Your task to perform on an android device: What is the recent news? Image 0: 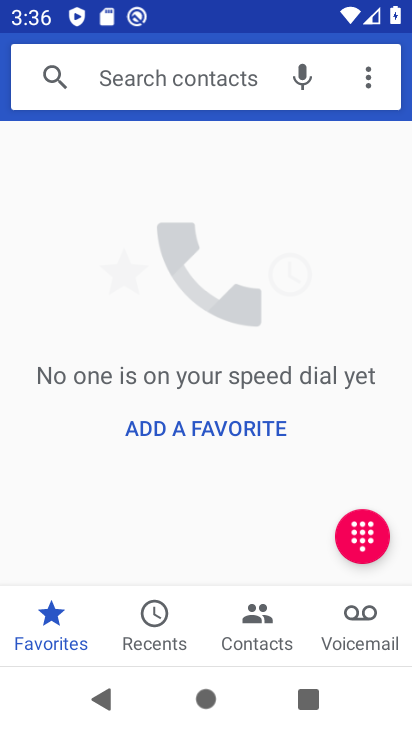
Step 0: press home button
Your task to perform on an android device: What is the recent news? Image 1: 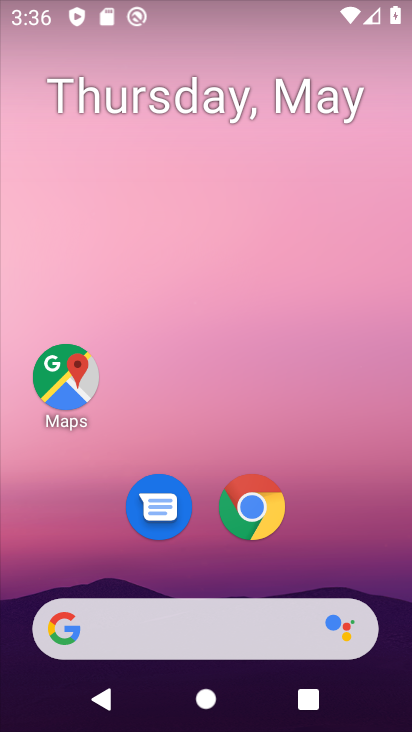
Step 1: click (176, 626)
Your task to perform on an android device: What is the recent news? Image 2: 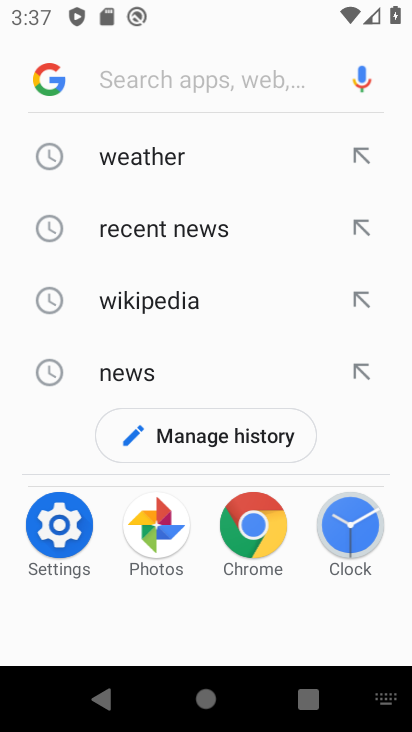
Step 2: type "recent news"
Your task to perform on an android device: What is the recent news? Image 3: 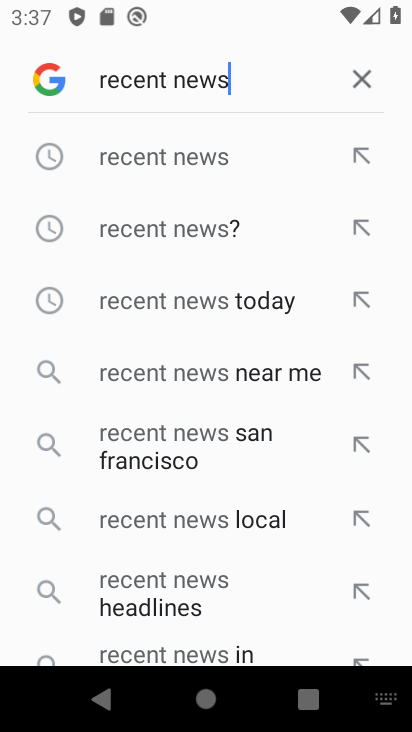
Step 3: click (189, 163)
Your task to perform on an android device: What is the recent news? Image 4: 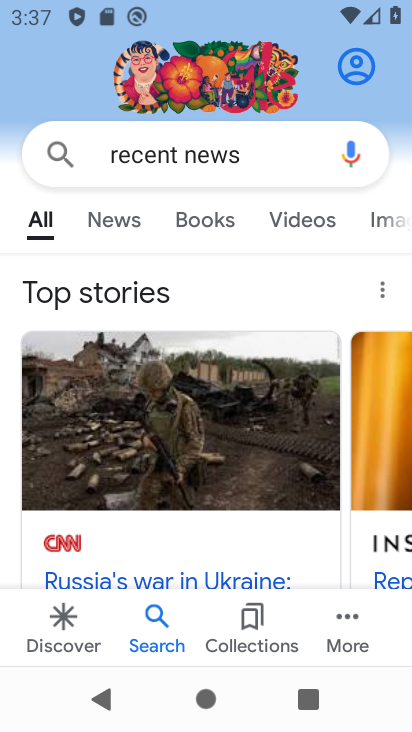
Step 4: click (95, 230)
Your task to perform on an android device: What is the recent news? Image 5: 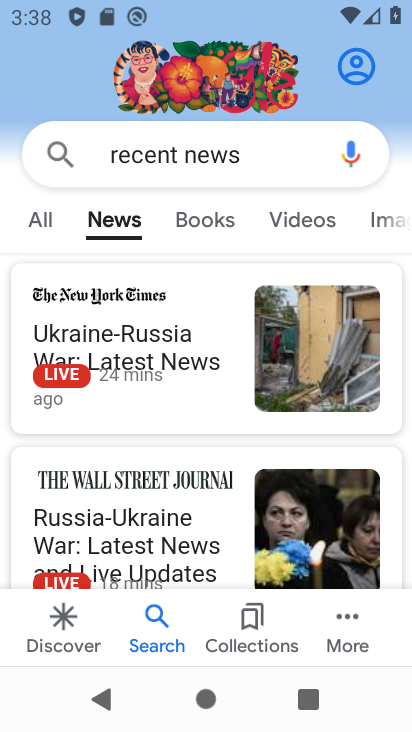
Step 5: task complete